Your task to perform on an android device: star an email in the gmail app Image 0: 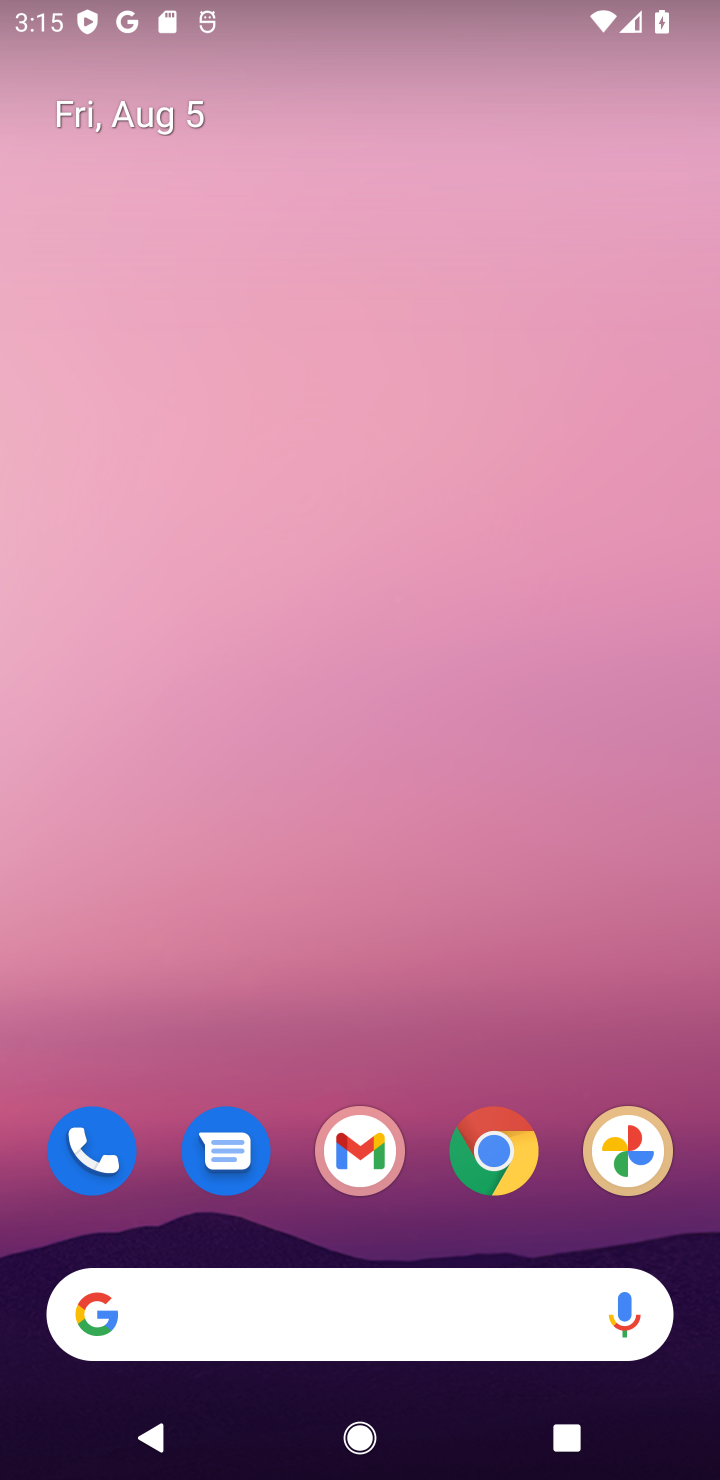
Step 0: click (368, 1147)
Your task to perform on an android device: star an email in the gmail app Image 1: 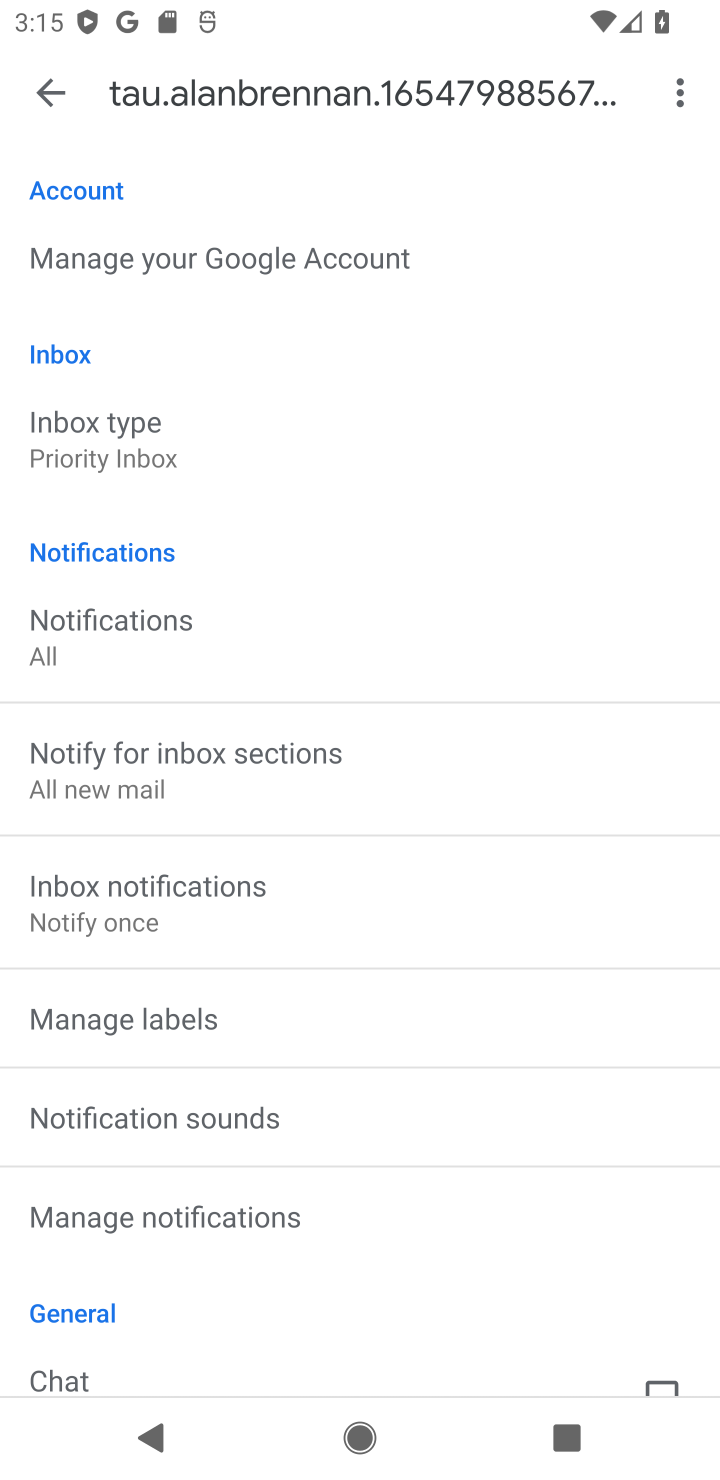
Step 1: press home button
Your task to perform on an android device: star an email in the gmail app Image 2: 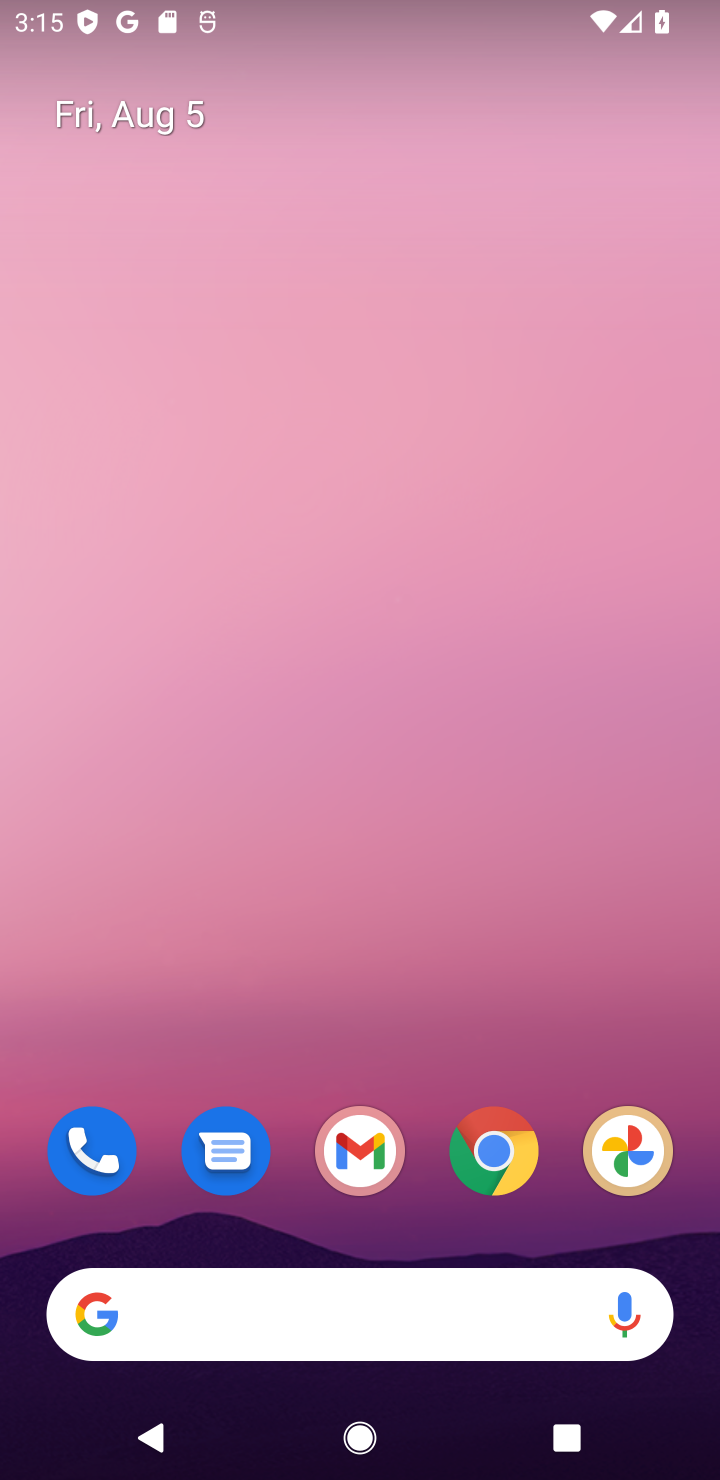
Step 2: click (366, 1146)
Your task to perform on an android device: star an email in the gmail app Image 3: 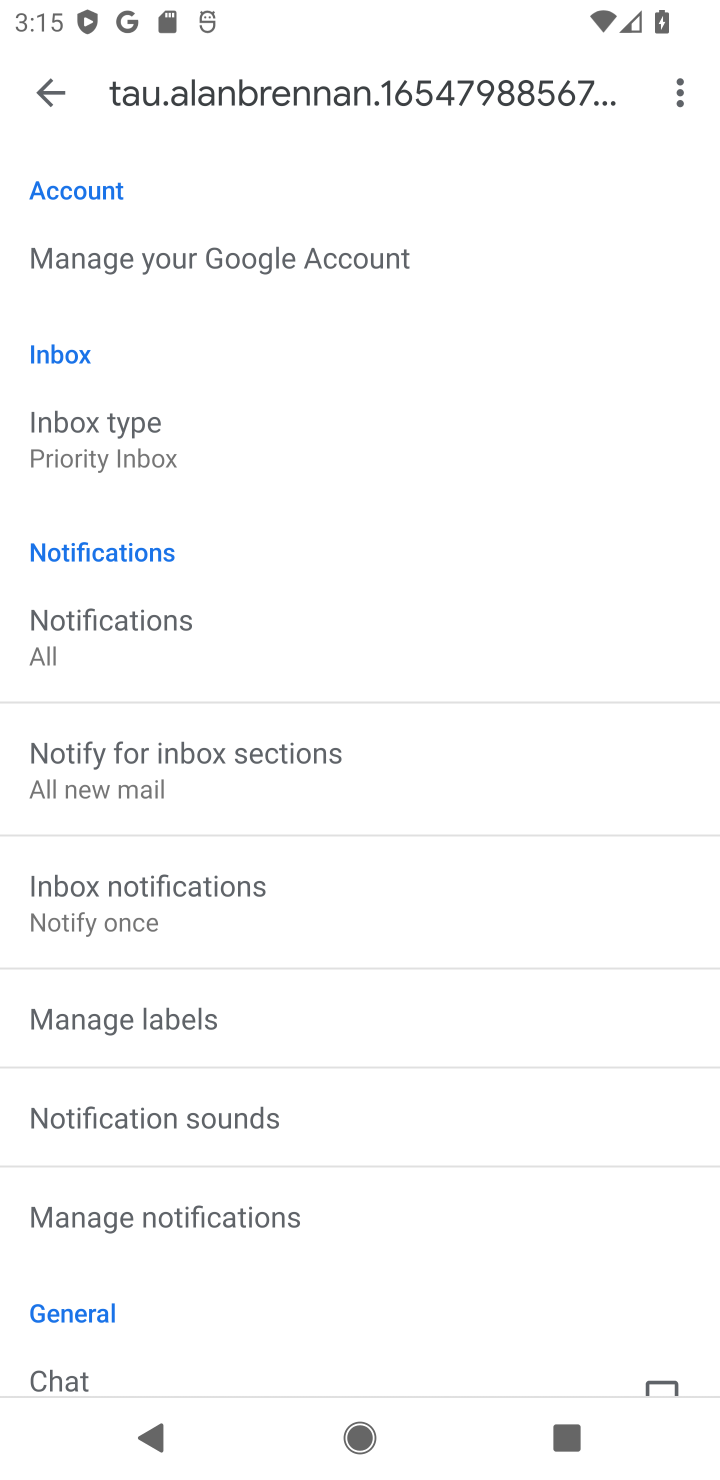
Step 3: click (48, 89)
Your task to perform on an android device: star an email in the gmail app Image 4: 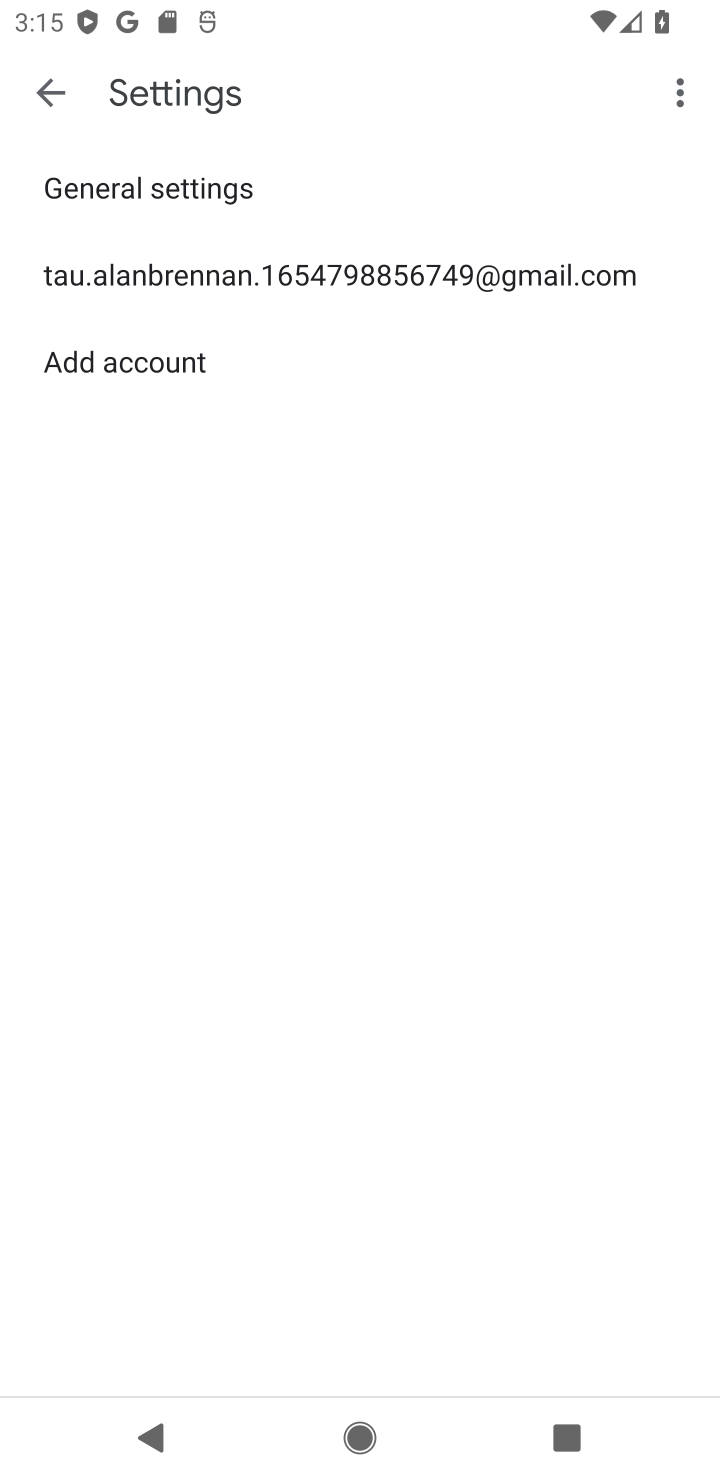
Step 4: click (54, 96)
Your task to perform on an android device: star an email in the gmail app Image 5: 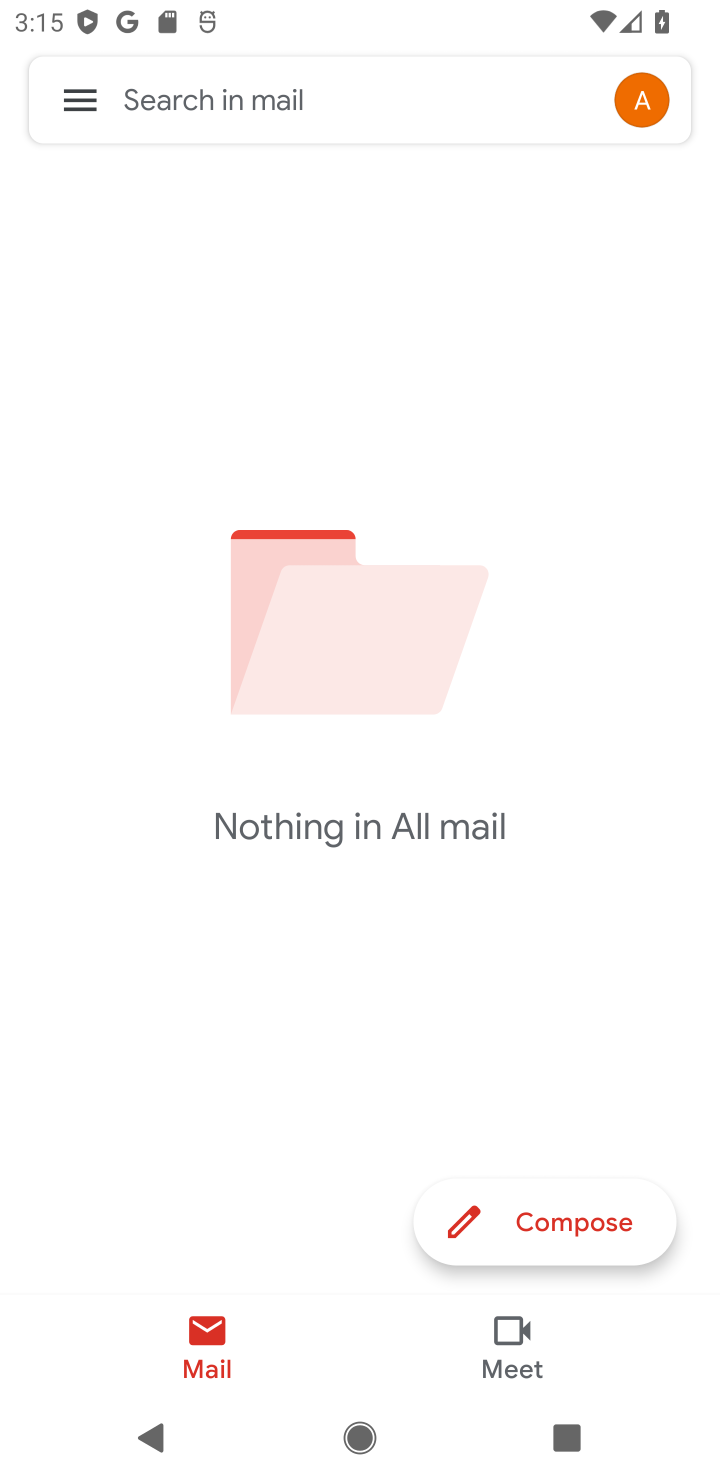
Step 5: click (82, 105)
Your task to perform on an android device: star an email in the gmail app Image 6: 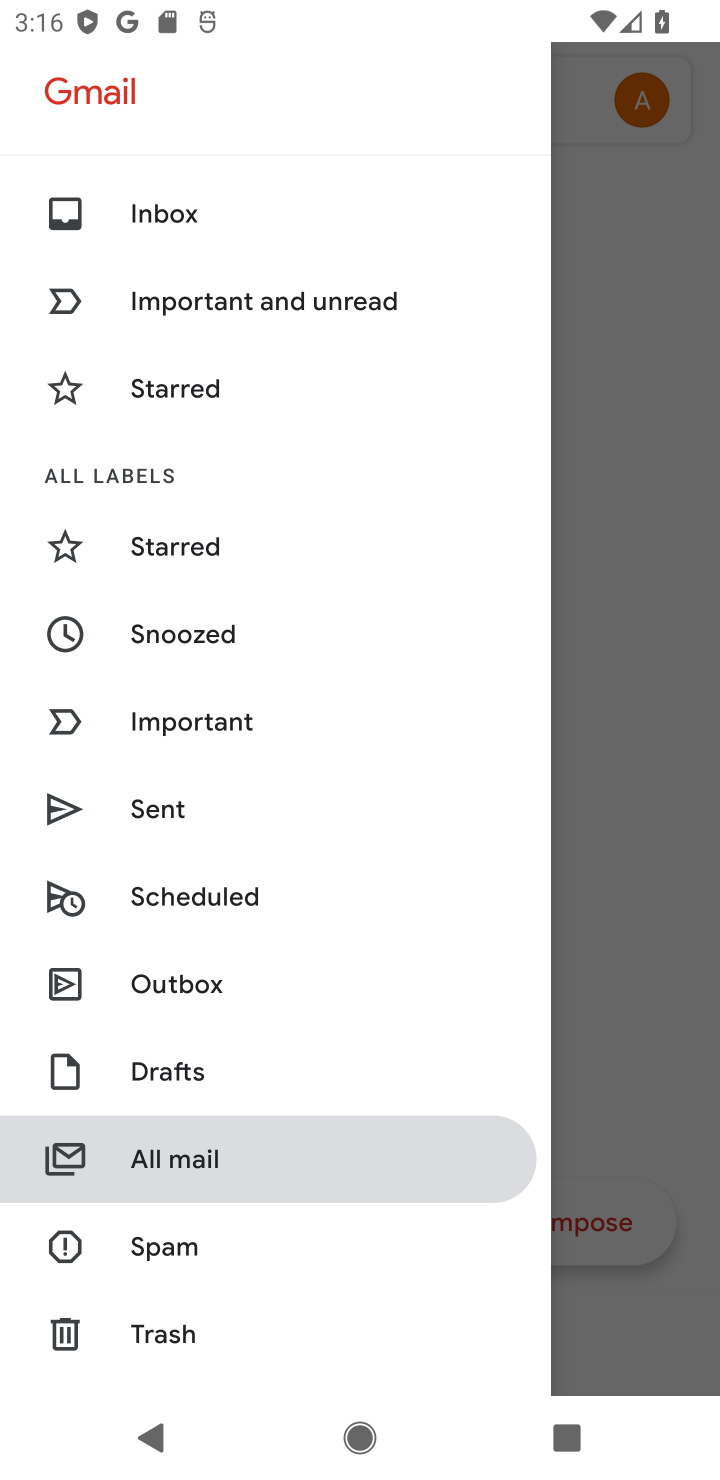
Step 6: click (346, 1133)
Your task to perform on an android device: star an email in the gmail app Image 7: 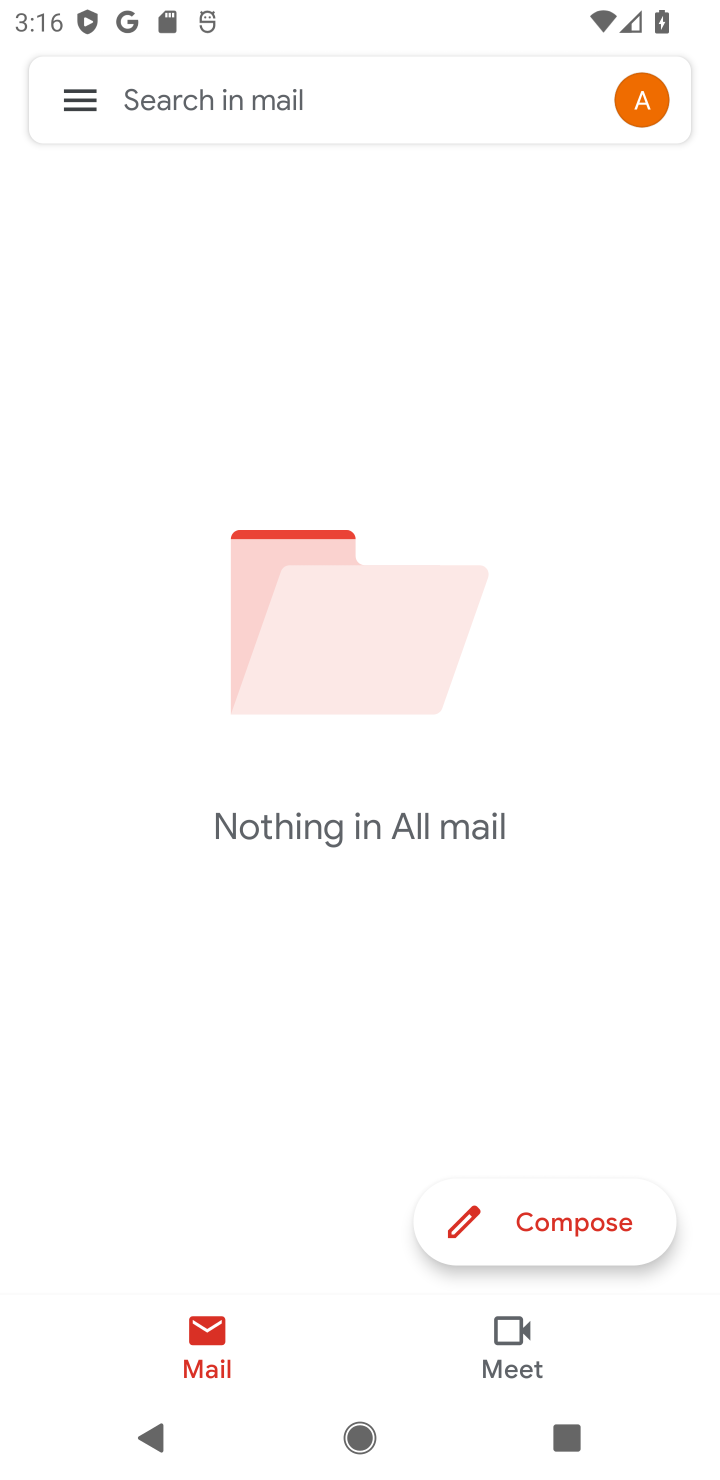
Step 7: task complete